Your task to perform on an android device: refresh tabs in the chrome app Image 0: 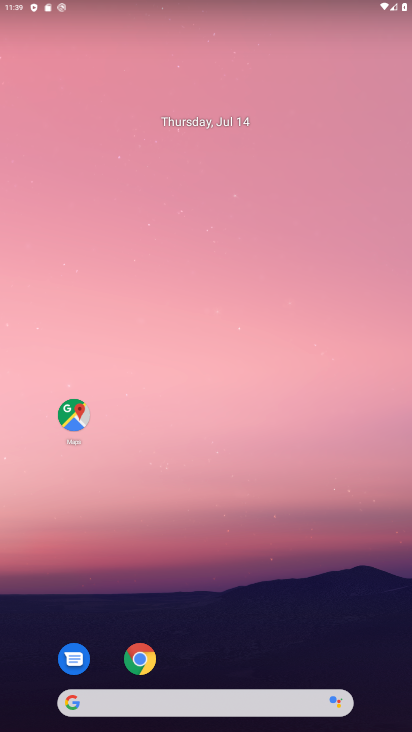
Step 0: click (141, 652)
Your task to perform on an android device: refresh tabs in the chrome app Image 1: 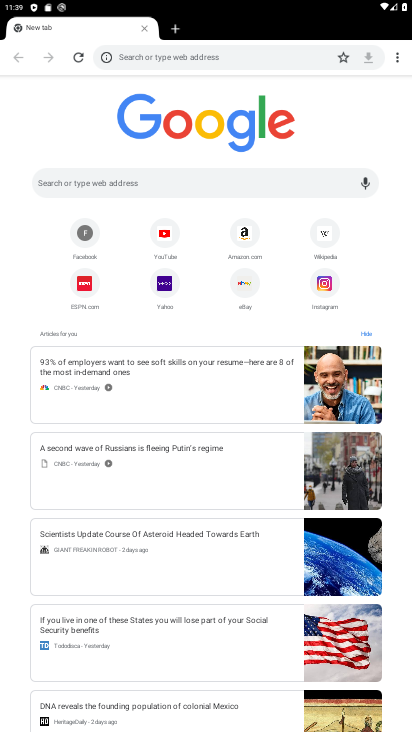
Step 1: click (75, 60)
Your task to perform on an android device: refresh tabs in the chrome app Image 2: 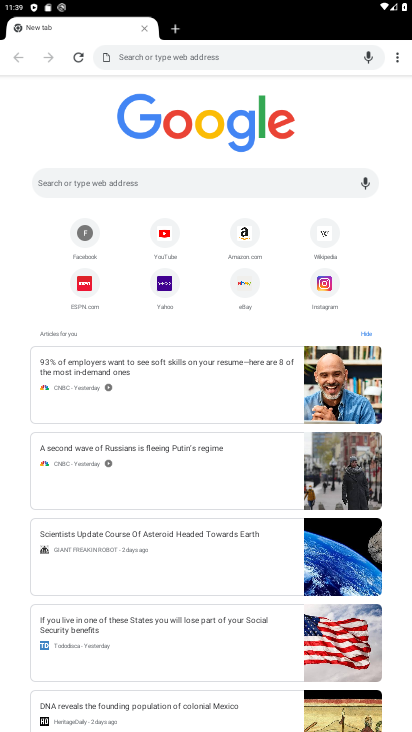
Step 2: task complete